Your task to perform on an android device: add a contact Image 0: 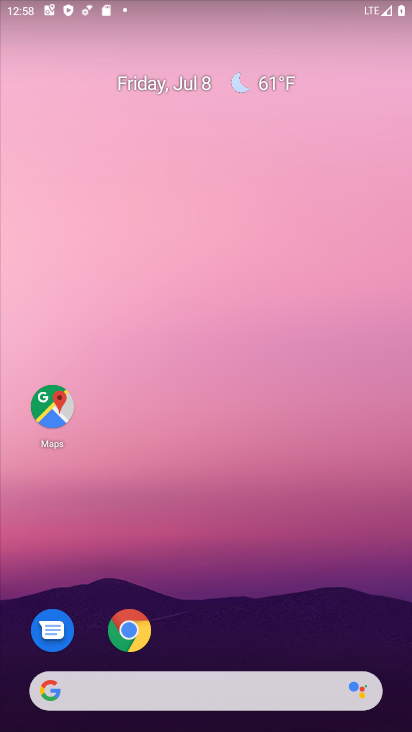
Step 0: drag from (384, 632) to (171, 29)
Your task to perform on an android device: add a contact Image 1: 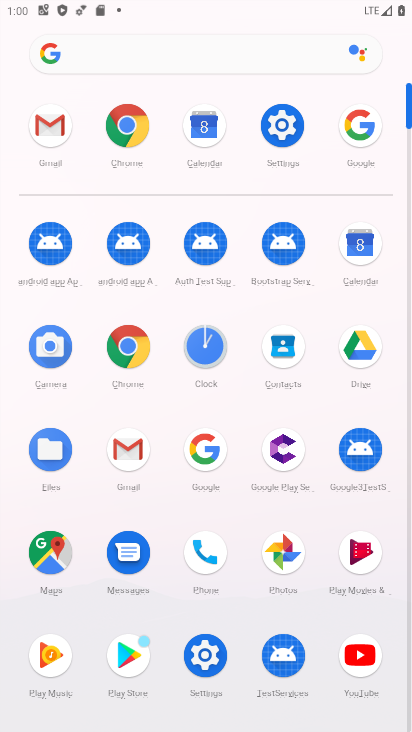
Step 1: click (278, 349)
Your task to perform on an android device: add a contact Image 2: 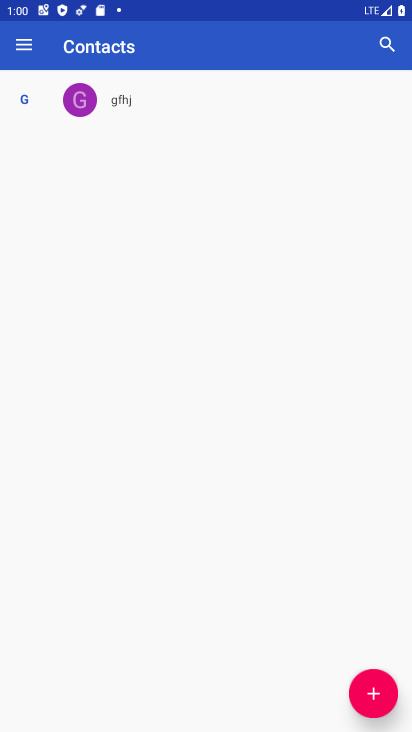
Step 2: click (366, 677)
Your task to perform on an android device: add a contact Image 3: 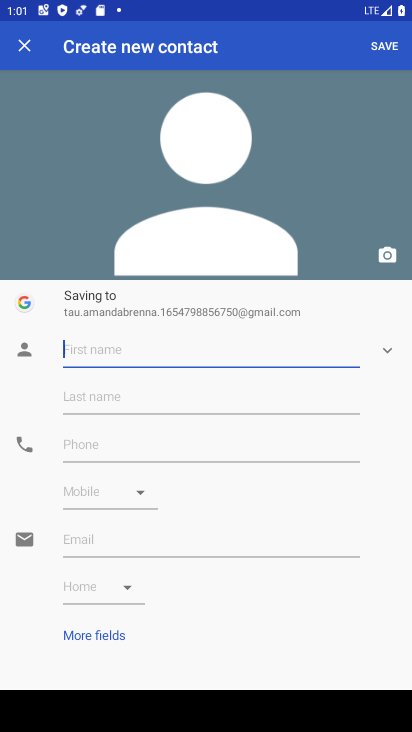
Step 3: type "gurish "
Your task to perform on an android device: add a contact Image 4: 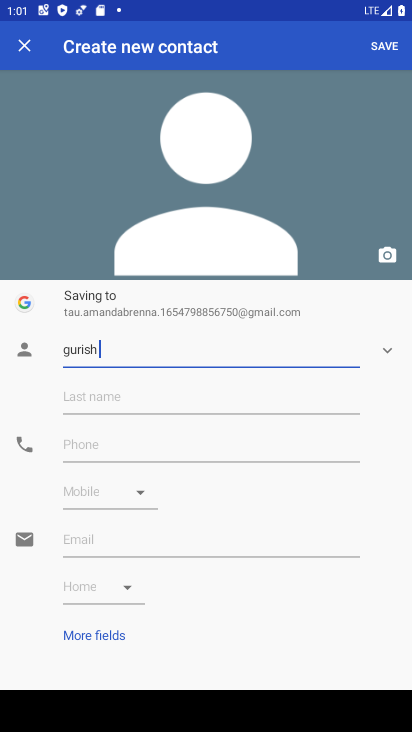
Step 4: click (373, 57)
Your task to perform on an android device: add a contact Image 5: 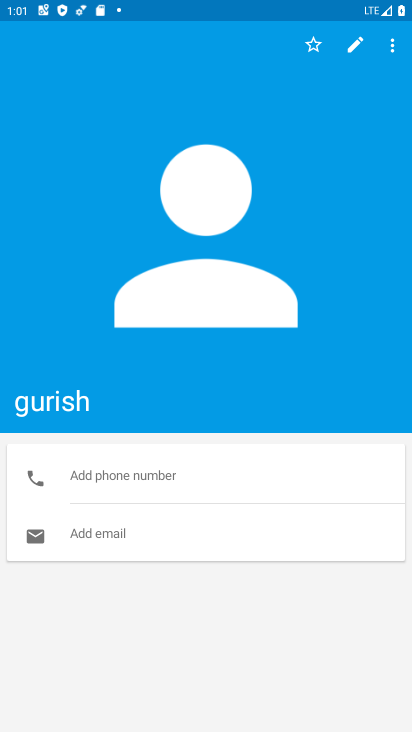
Step 5: task complete